Your task to perform on an android device: all mails in gmail Image 0: 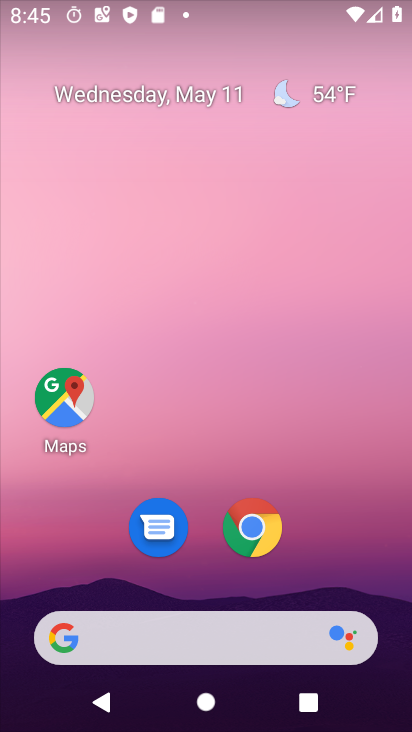
Step 0: drag from (223, 568) to (207, 116)
Your task to perform on an android device: all mails in gmail Image 1: 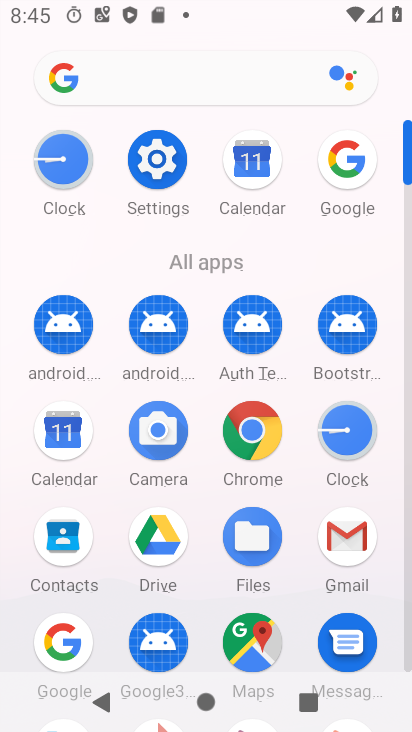
Step 1: click (341, 539)
Your task to perform on an android device: all mails in gmail Image 2: 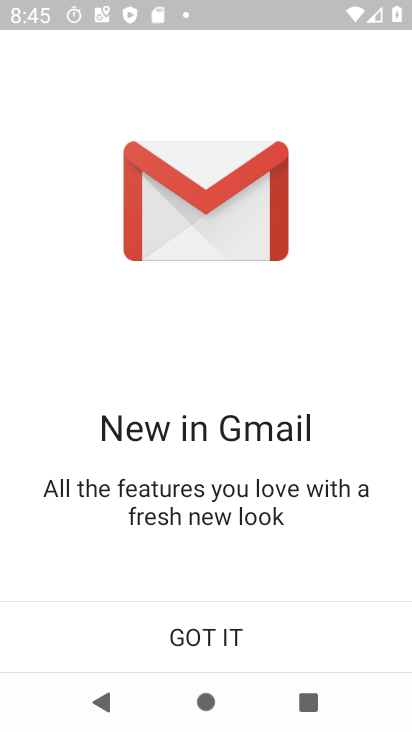
Step 2: click (186, 650)
Your task to perform on an android device: all mails in gmail Image 3: 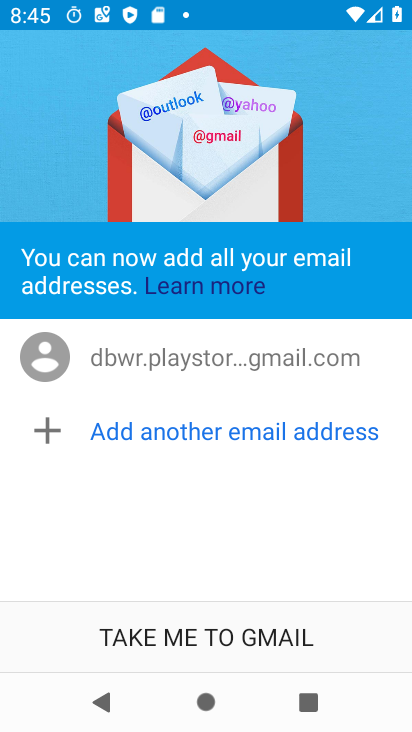
Step 3: click (192, 646)
Your task to perform on an android device: all mails in gmail Image 4: 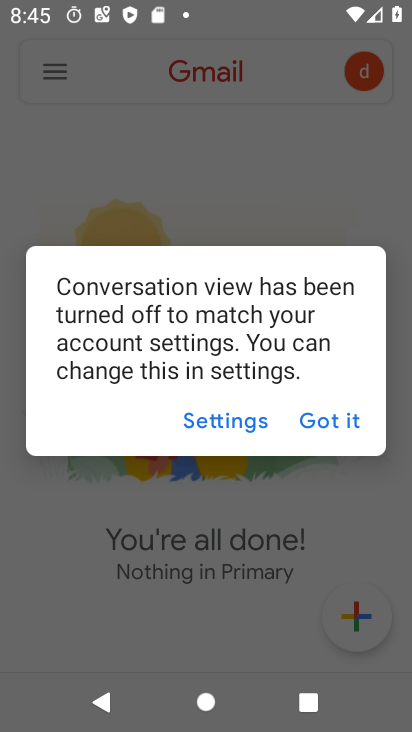
Step 4: click (324, 421)
Your task to perform on an android device: all mails in gmail Image 5: 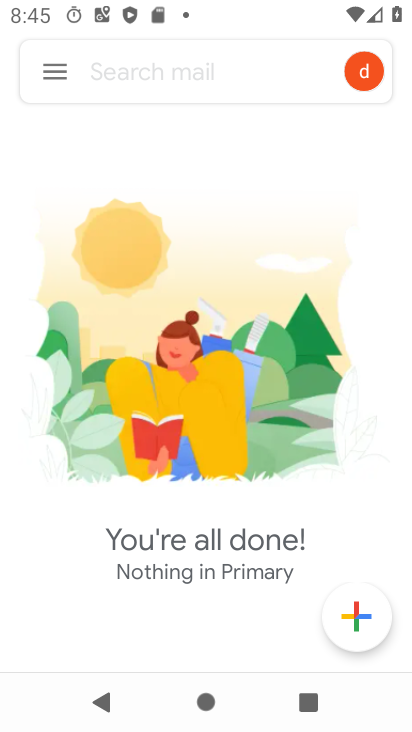
Step 5: click (50, 74)
Your task to perform on an android device: all mails in gmail Image 6: 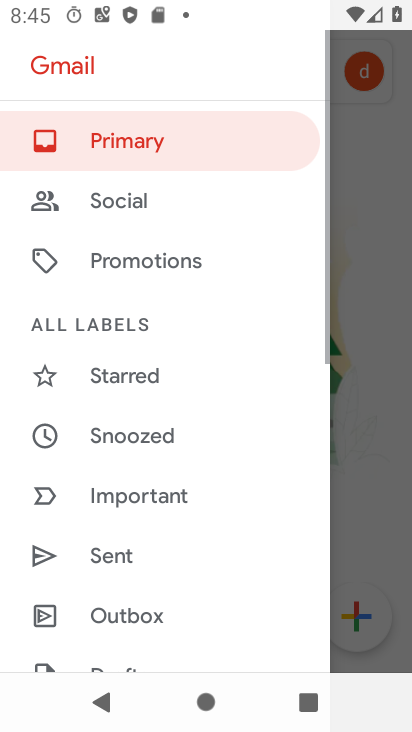
Step 6: drag from (184, 547) to (179, 98)
Your task to perform on an android device: all mails in gmail Image 7: 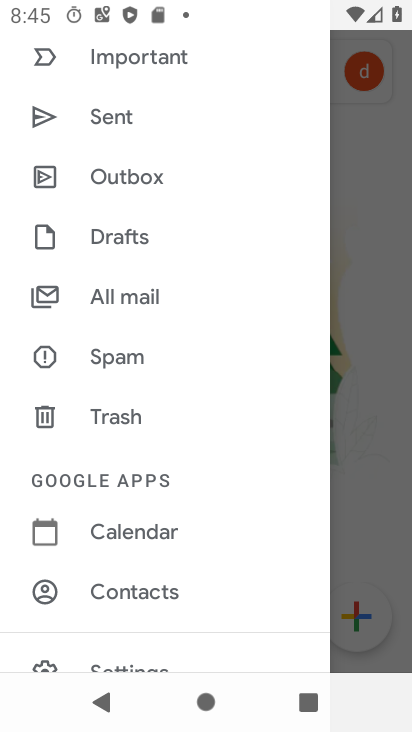
Step 7: click (133, 291)
Your task to perform on an android device: all mails in gmail Image 8: 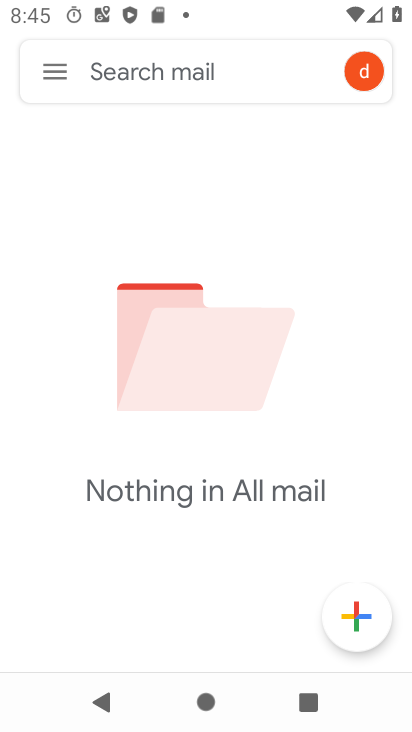
Step 8: task complete